Your task to perform on an android device: toggle data saver in the chrome app Image 0: 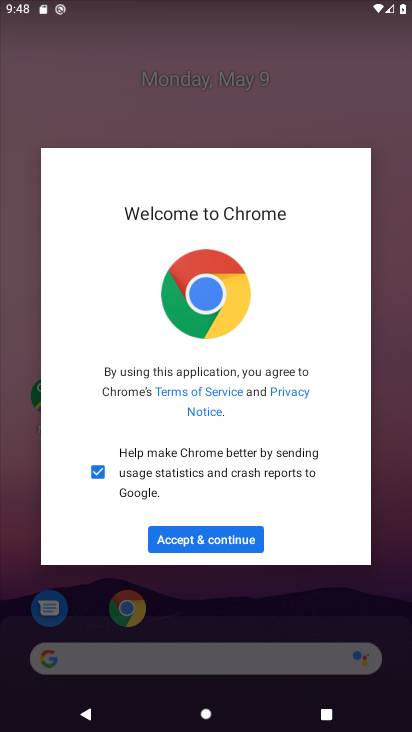
Step 0: click (218, 538)
Your task to perform on an android device: toggle data saver in the chrome app Image 1: 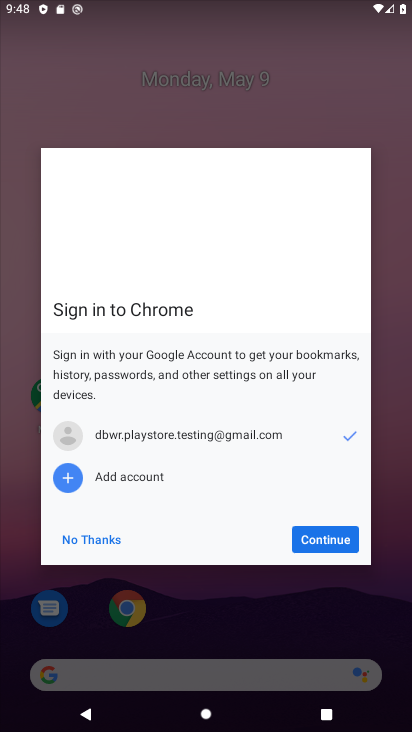
Step 1: click (339, 536)
Your task to perform on an android device: toggle data saver in the chrome app Image 2: 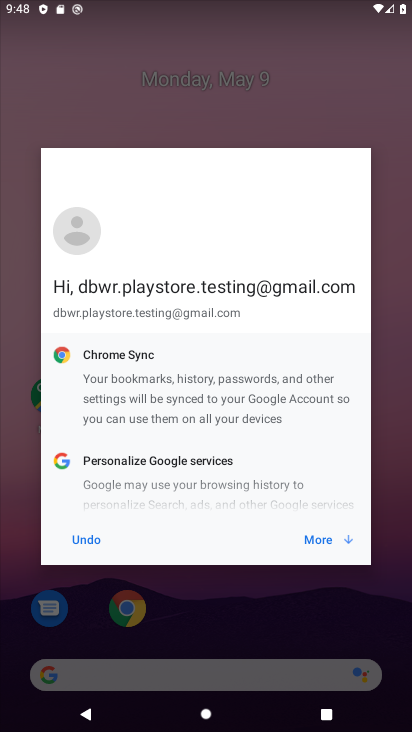
Step 2: click (330, 542)
Your task to perform on an android device: toggle data saver in the chrome app Image 3: 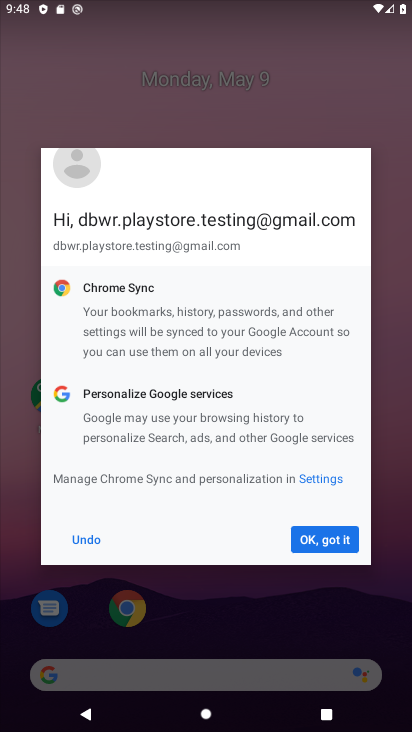
Step 3: click (330, 542)
Your task to perform on an android device: toggle data saver in the chrome app Image 4: 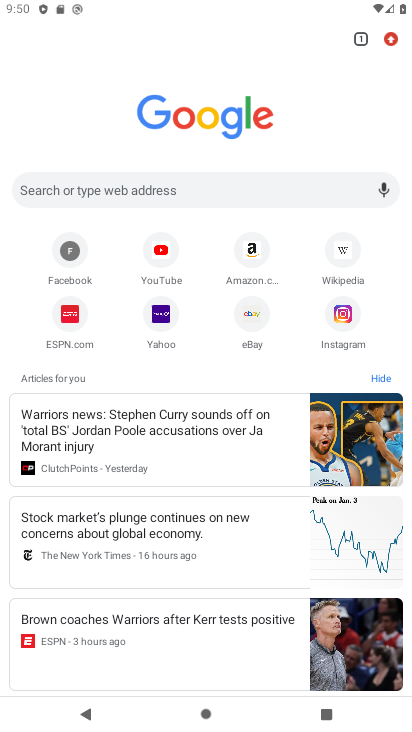
Step 4: press home button
Your task to perform on an android device: toggle data saver in the chrome app Image 5: 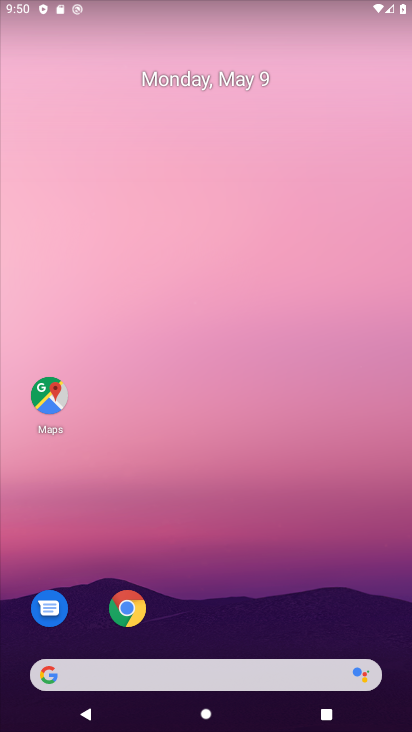
Step 5: click (111, 605)
Your task to perform on an android device: toggle data saver in the chrome app Image 6: 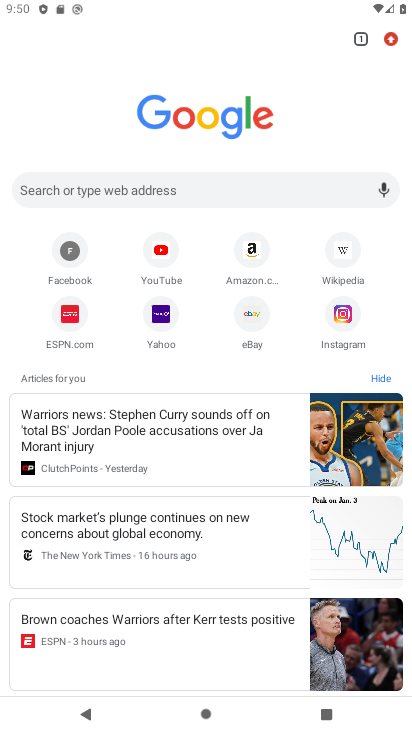
Step 6: drag from (392, 37) to (250, 370)
Your task to perform on an android device: toggle data saver in the chrome app Image 7: 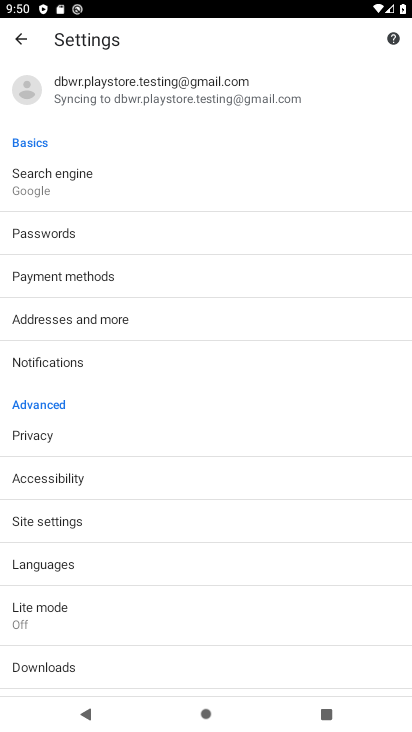
Step 7: click (51, 617)
Your task to perform on an android device: toggle data saver in the chrome app Image 8: 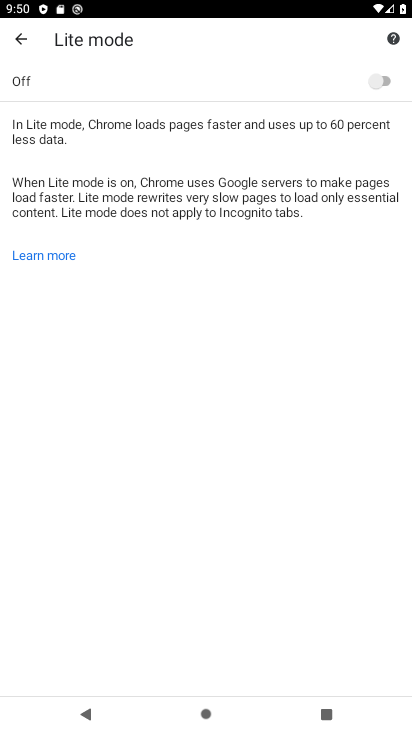
Step 8: click (390, 72)
Your task to perform on an android device: toggle data saver in the chrome app Image 9: 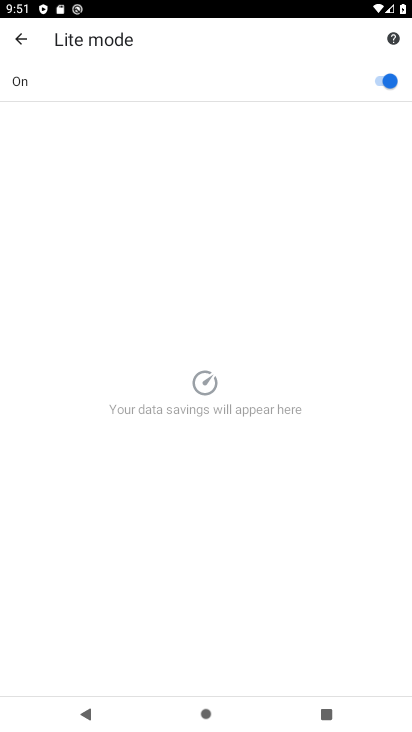
Step 9: task complete